Your task to perform on an android device: show emergency info Image 0: 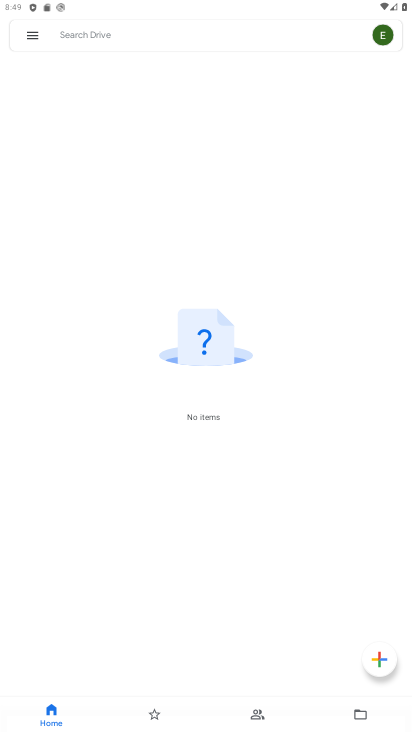
Step 0: press home button
Your task to perform on an android device: show emergency info Image 1: 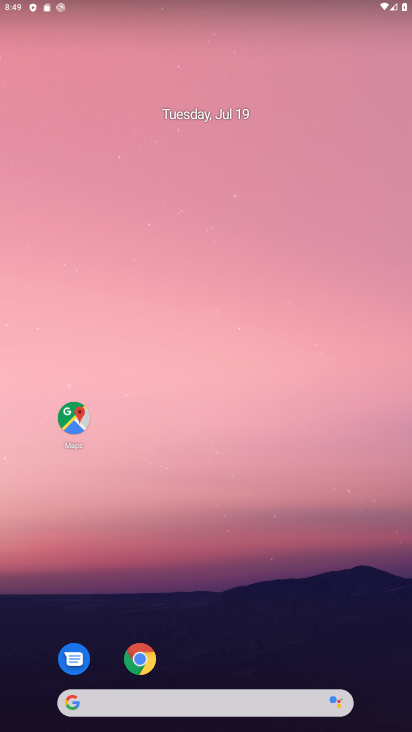
Step 1: drag from (200, 625) to (320, 219)
Your task to perform on an android device: show emergency info Image 2: 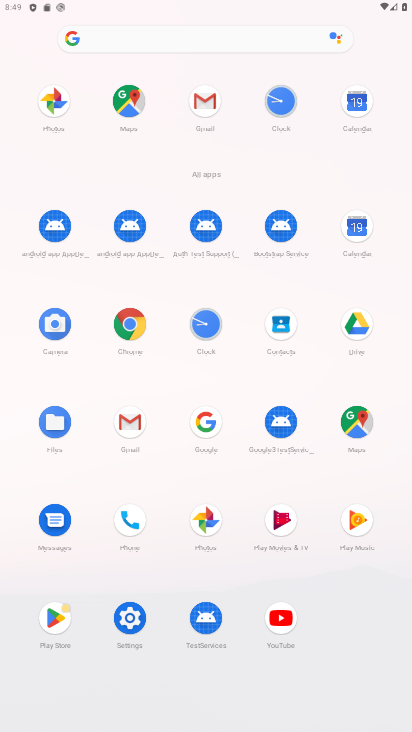
Step 2: click (115, 611)
Your task to perform on an android device: show emergency info Image 3: 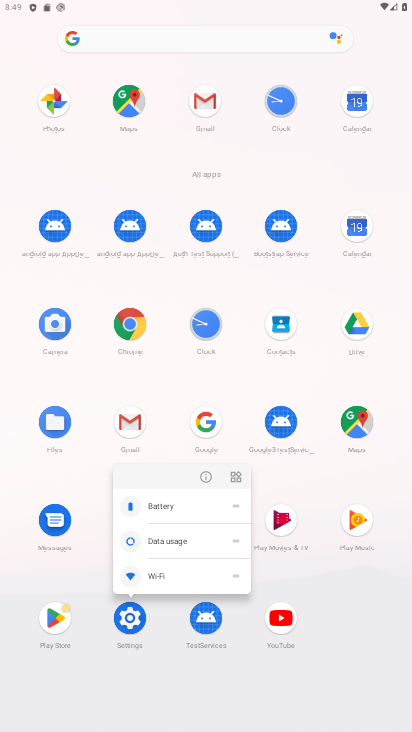
Step 3: click (204, 470)
Your task to perform on an android device: show emergency info Image 4: 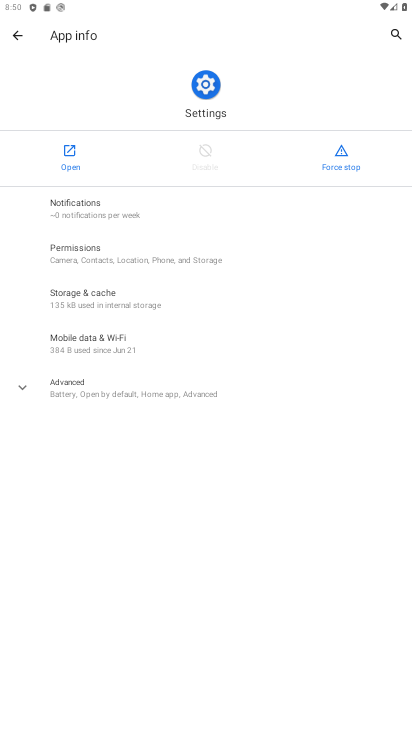
Step 4: click (71, 154)
Your task to perform on an android device: show emergency info Image 5: 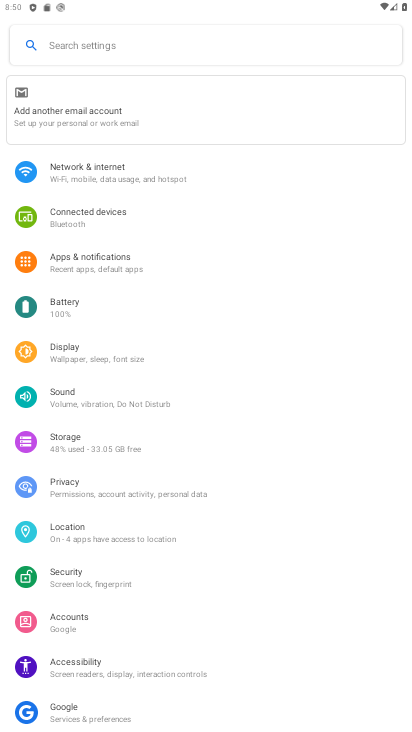
Step 5: drag from (137, 610) to (178, 72)
Your task to perform on an android device: show emergency info Image 6: 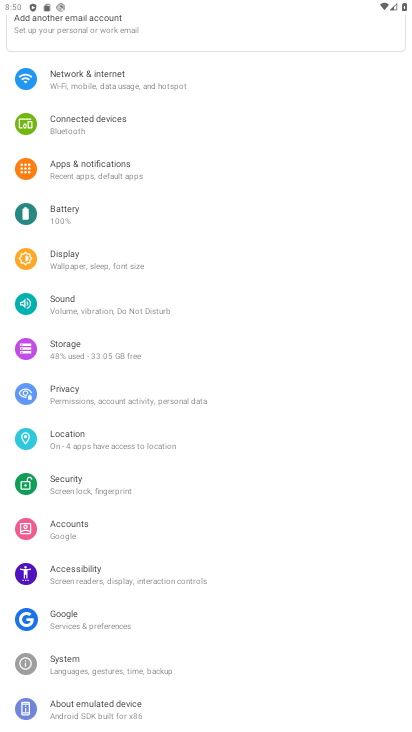
Step 6: click (121, 706)
Your task to perform on an android device: show emergency info Image 7: 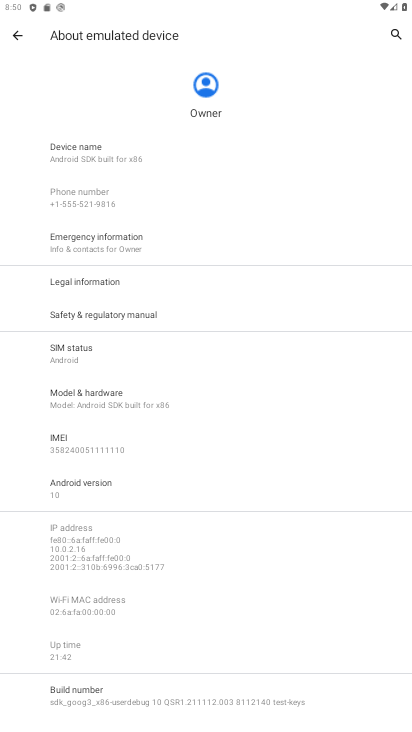
Step 7: click (127, 250)
Your task to perform on an android device: show emergency info Image 8: 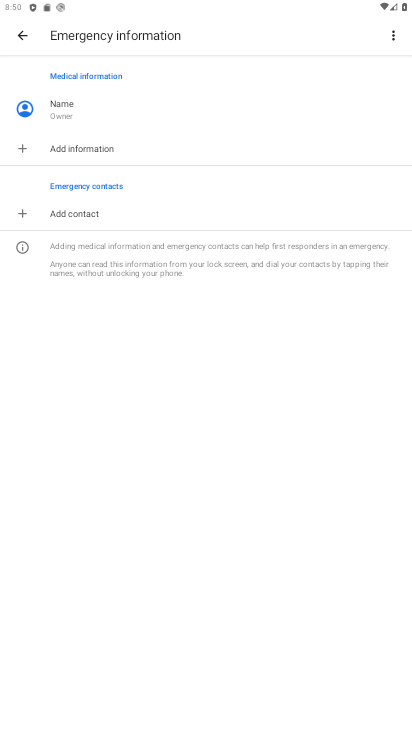
Step 8: task complete